Your task to perform on an android device: Show me popular games on the Play Store Image 0: 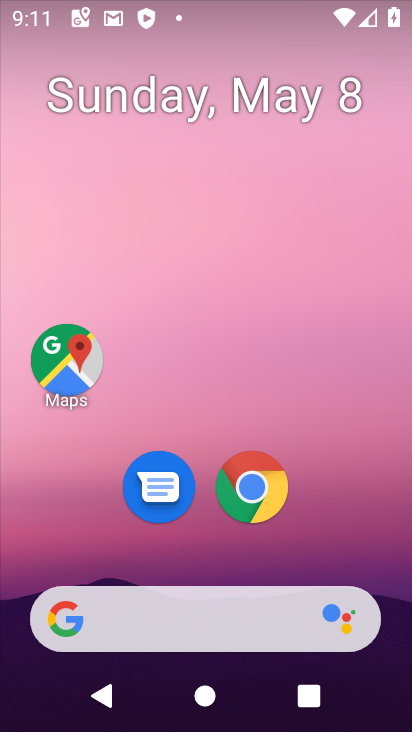
Step 0: drag from (408, 627) to (278, 21)
Your task to perform on an android device: Show me popular games on the Play Store Image 1: 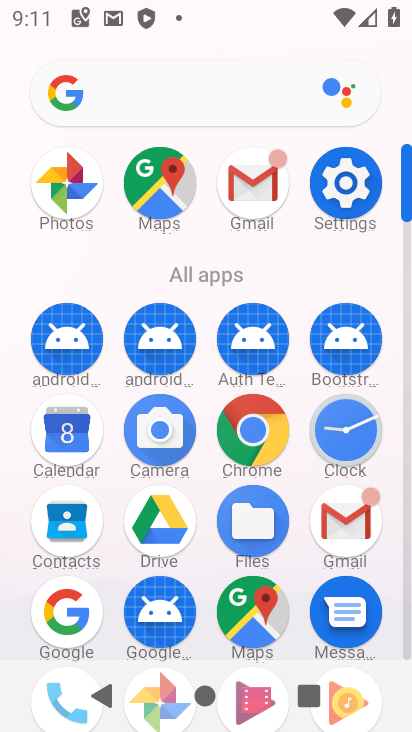
Step 1: drag from (307, 633) to (283, 139)
Your task to perform on an android device: Show me popular games on the Play Store Image 2: 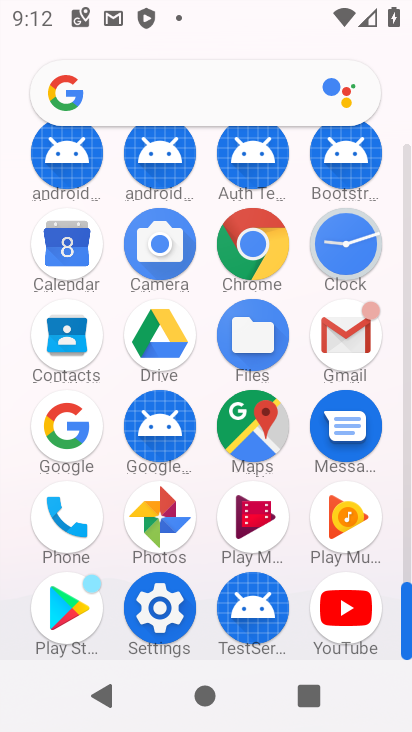
Step 2: click (67, 605)
Your task to perform on an android device: Show me popular games on the Play Store Image 3: 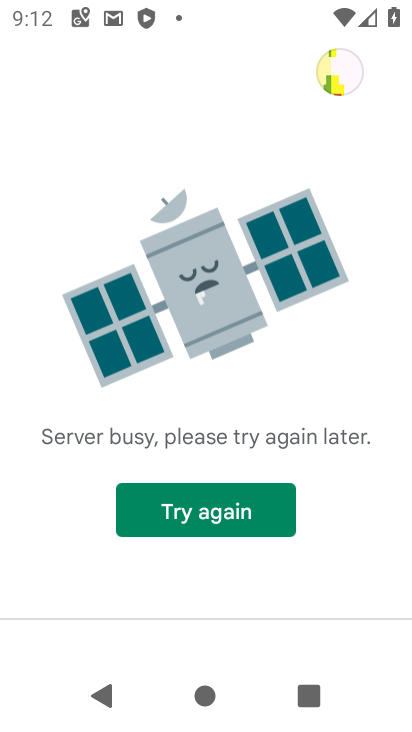
Step 3: click (194, 517)
Your task to perform on an android device: Show me popular games on the Play Store Image 4: 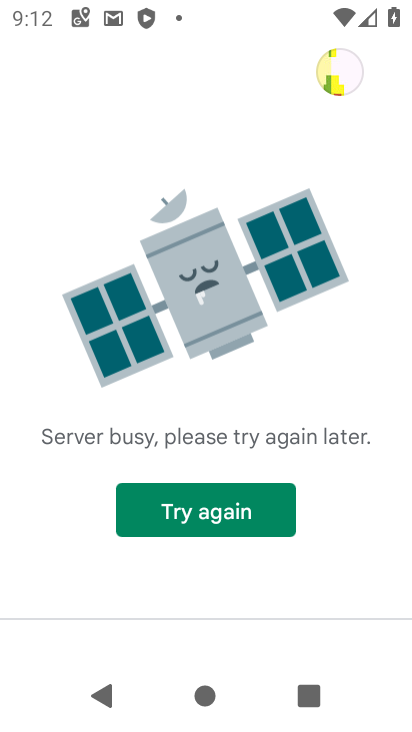
Step 4: task complete